Your task to perform on an android device: turn pop-ups off in chrome Image 0: 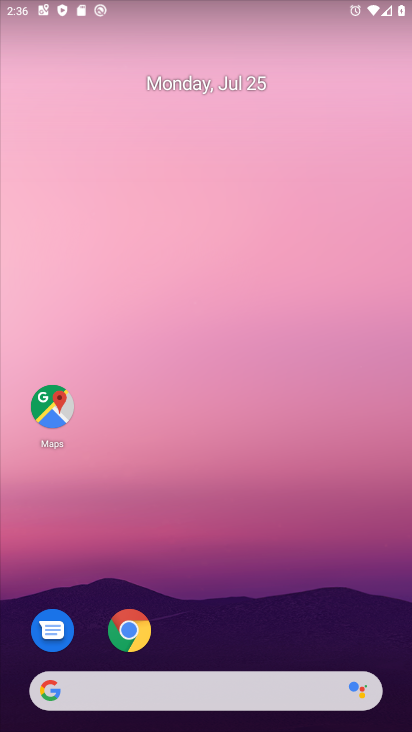
Step 0: click (116, 648)
Your task to perform on an android device: turn pop-ups off in chrome Image 1: 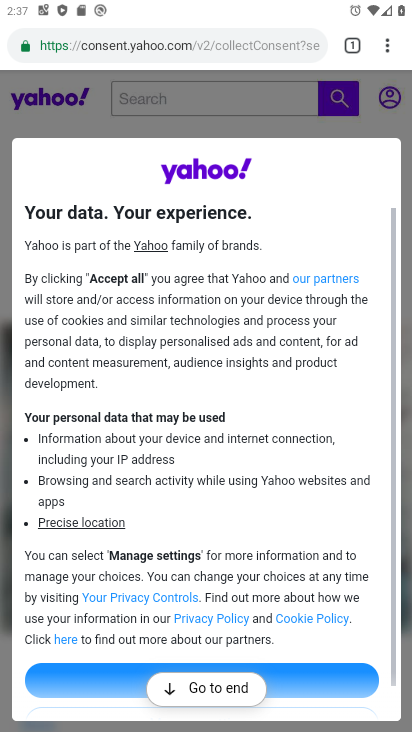
Step 1: task complete